Your task to perform on an android device: Open calendar and show me the third week of next month Image 0: 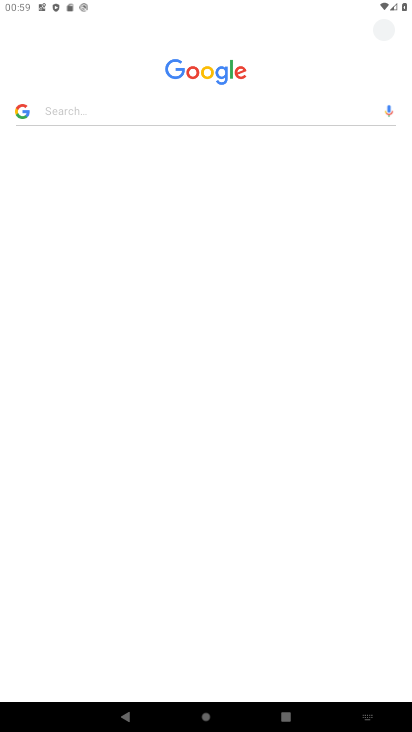
Step 0: press home button
Your task to perform on an android device: Open calendar and show me the third week of next month Image 1: 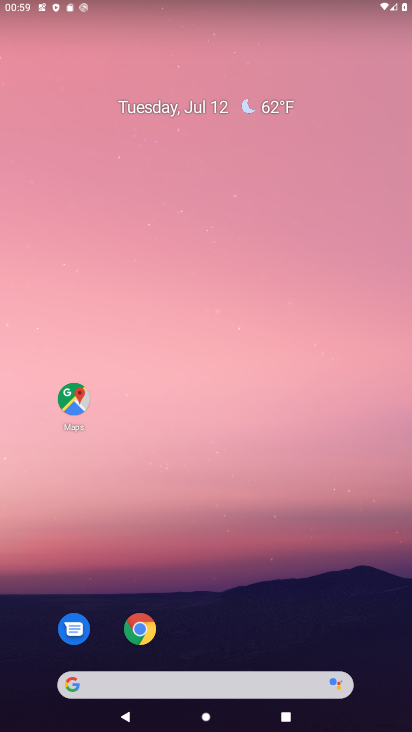
Step 1: drag from (276, 557) to (251, 306)
Your task to perform on an android device: Open calendar and show me the third week of next month Image 2: 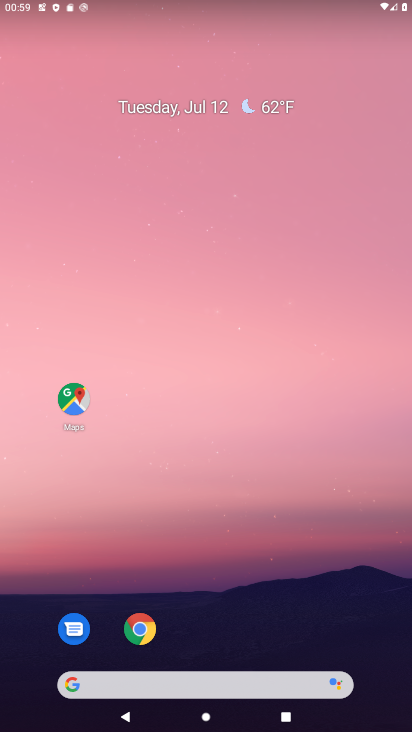
Step 2: drag from (213, 616) to (175, 266)
Your task to perform on an android device: Open calendar and show me the third week of next month Image 3: 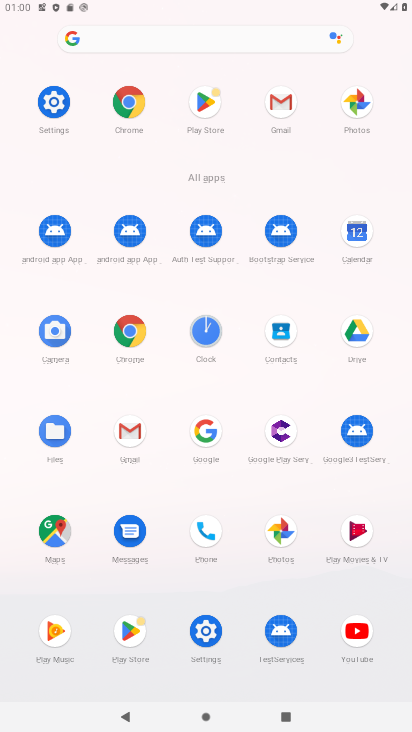
Step 3: click (338, 247)
Your task to perform on an android device: Open calendar and show me the third week of next month Image 4: 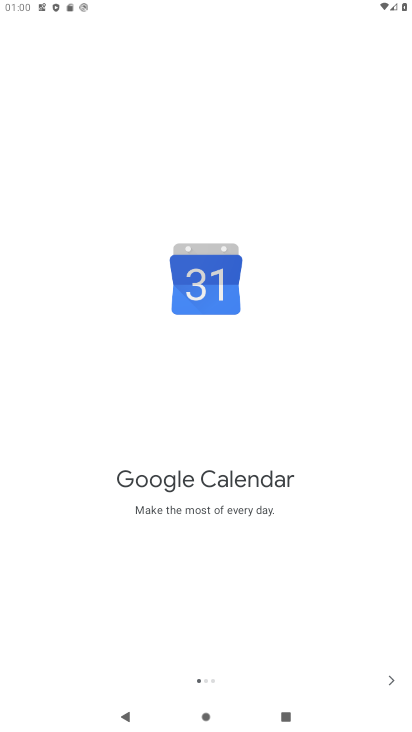
Step 4: click (386, 681)
Your task to perform on an android device: Open calendar and show me the third week of next month Image 5: 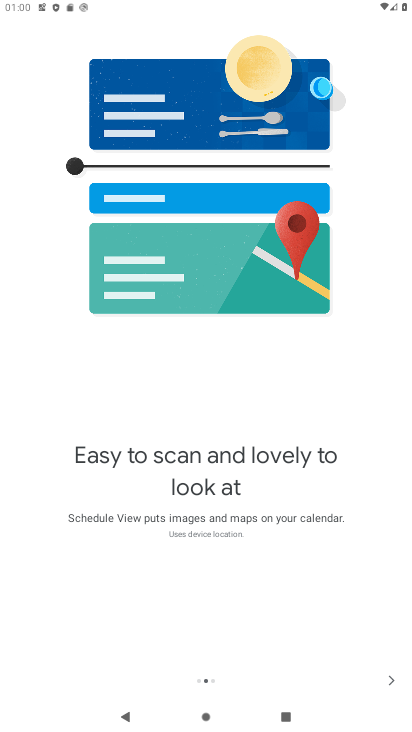
Step 5: click (395, 675)
Your task to perform on an android device: Open calendar and show me the third week of next month Image 6: 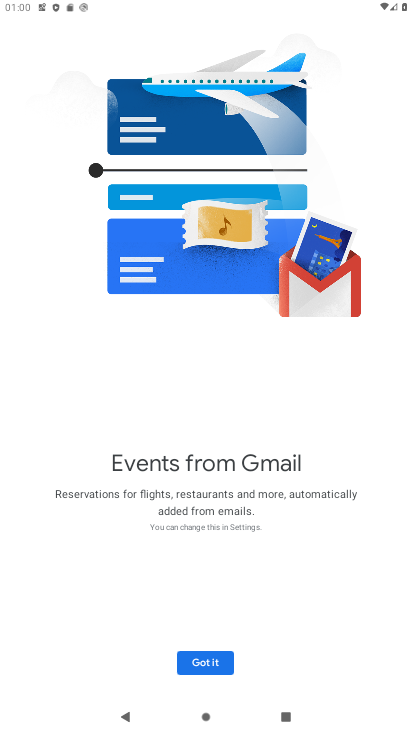
Step 6: click (194, 660)
Your task to perform on an android device: Open calendar and show me the third week of next month Image 7: 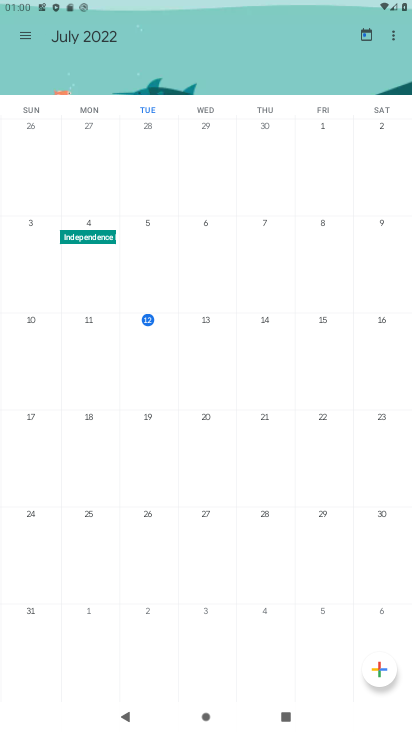
Step 7: drag from (333, 317) to (333, 235)
Your task to perform on an android device: Open calendar and show me the third week of next month Image 8: 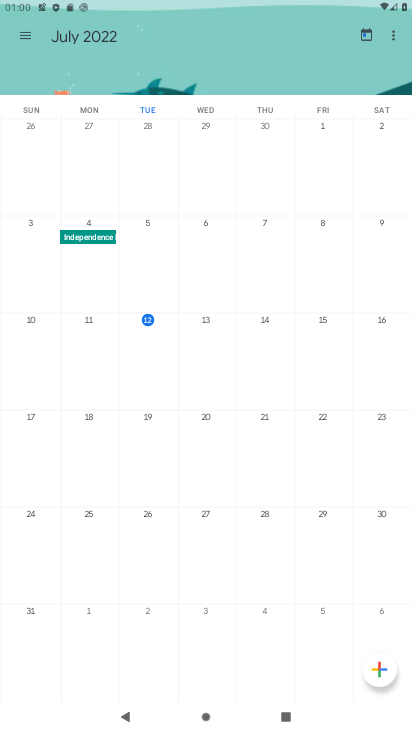
Step 8: drag from (388, 218) to (0, 268)
Your task to perform on an android device: Open calendar and show me the third week of next month Image 9: 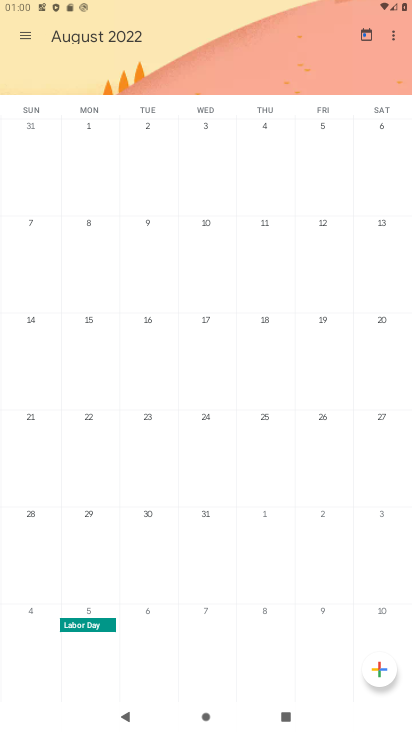
Step 9: click (92, 349)
Your task to perform on an android device: Open calendar and show me the third week of next month Image 10: 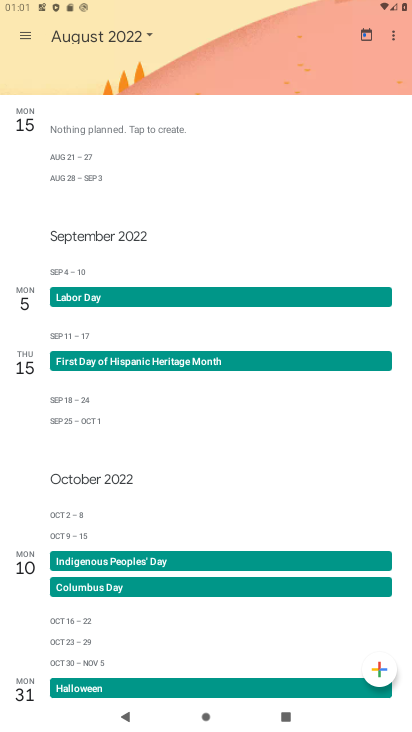
Step 10: task complete